Your task to perform on an android device: Open Wikipedia Image 0: 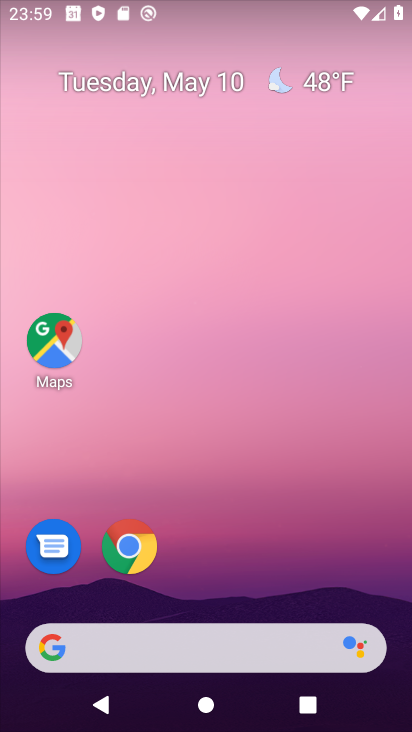
Step 0: click (161, 637)
Your task to perform on an android device: Open Wikipedia Image 1: 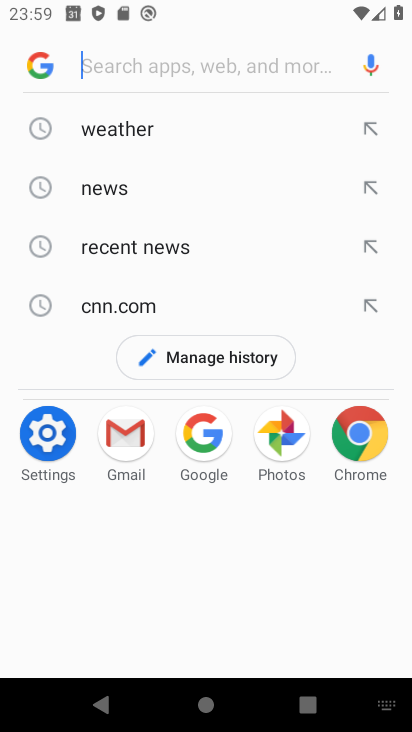
Step 1: type "Wikipedia"
Your task to perform on an android device: Open Wikipedia Image 2: 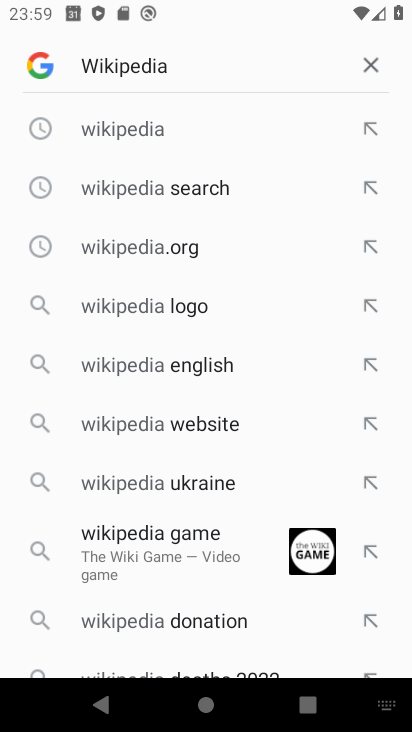
Step 2: click (125, 139)
Your task to perform on an android device: Open Wikipedia Image 3: 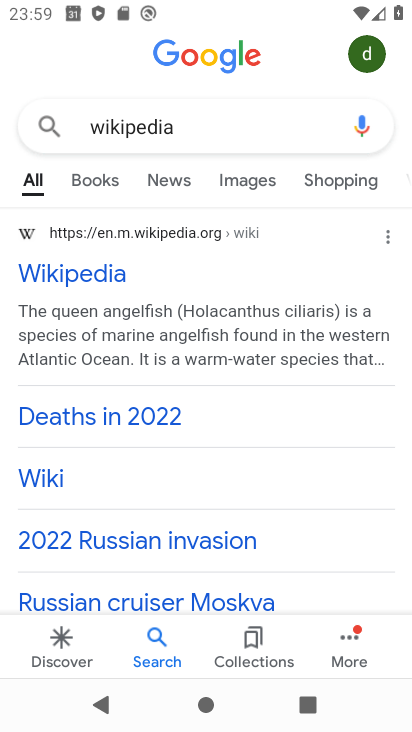
Step 3: click (79, 265)
Your task to perform on an android device: Open Wikipedia Image 4: 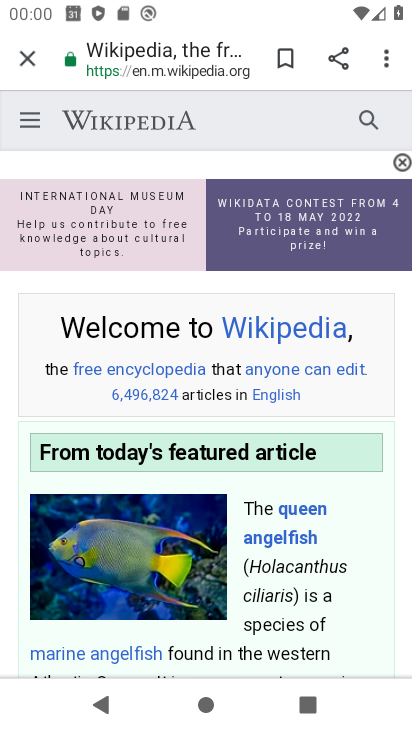
Step 4: task complete